Your task to perform on an android device: open app "Flipkart Online Shopping App" (install if not already installed) and go to login screen Image 0: 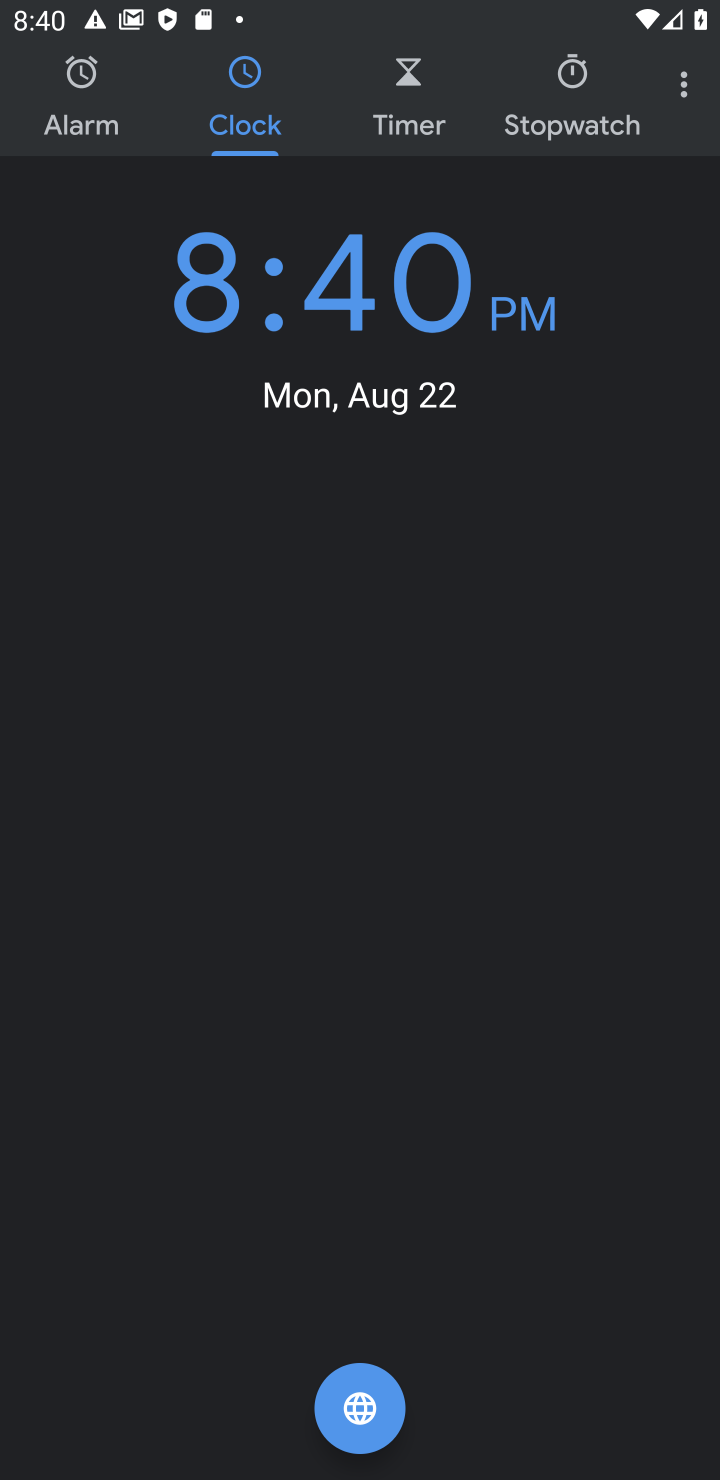
Step 0: press home button
Your task to perform on an android device: open app "Flipkart Online Shopping App" (install if not already installed) and go to login screen Image 1: 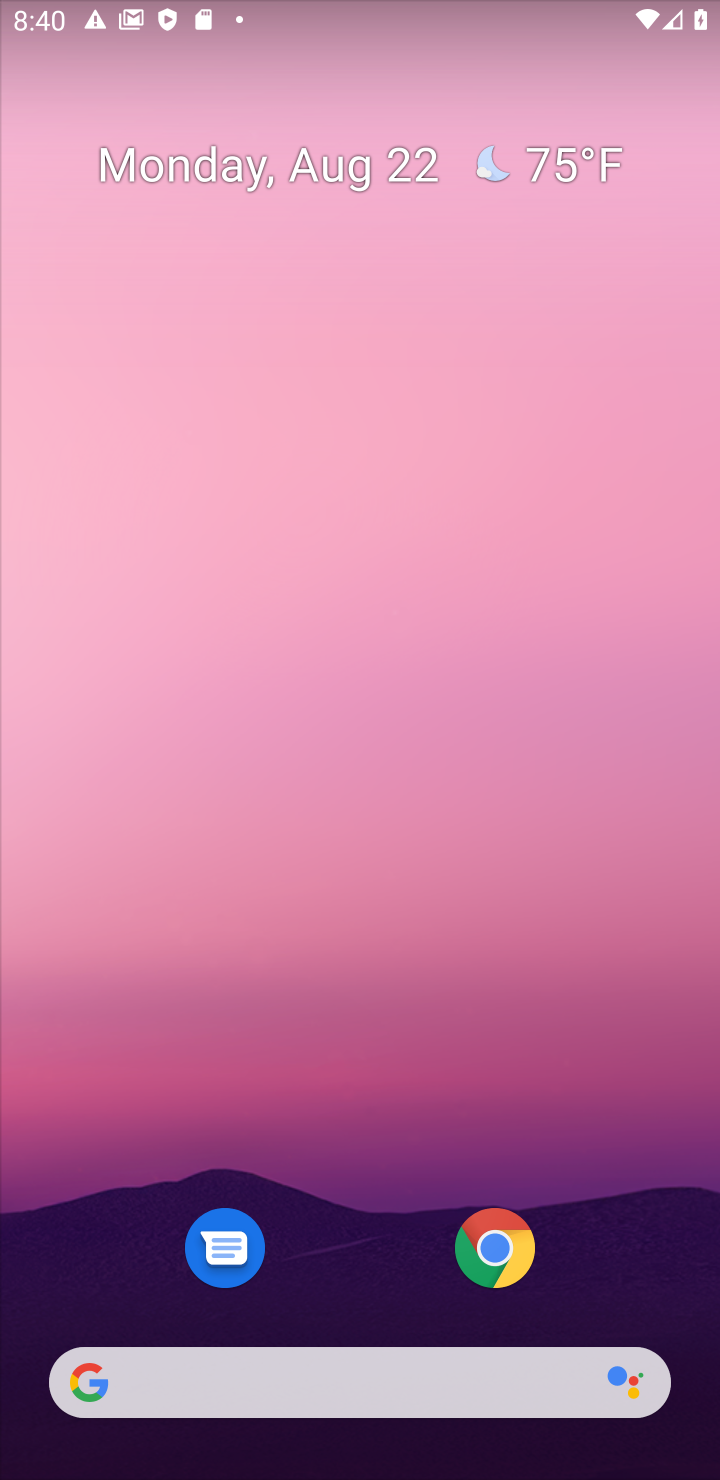
Step 1: drag from (319, 1238) to (330, 185)
Your task to perform on an android device: open app "Flipkart Online Shopping App" (install if not already installed) and go to login screen Image 2: 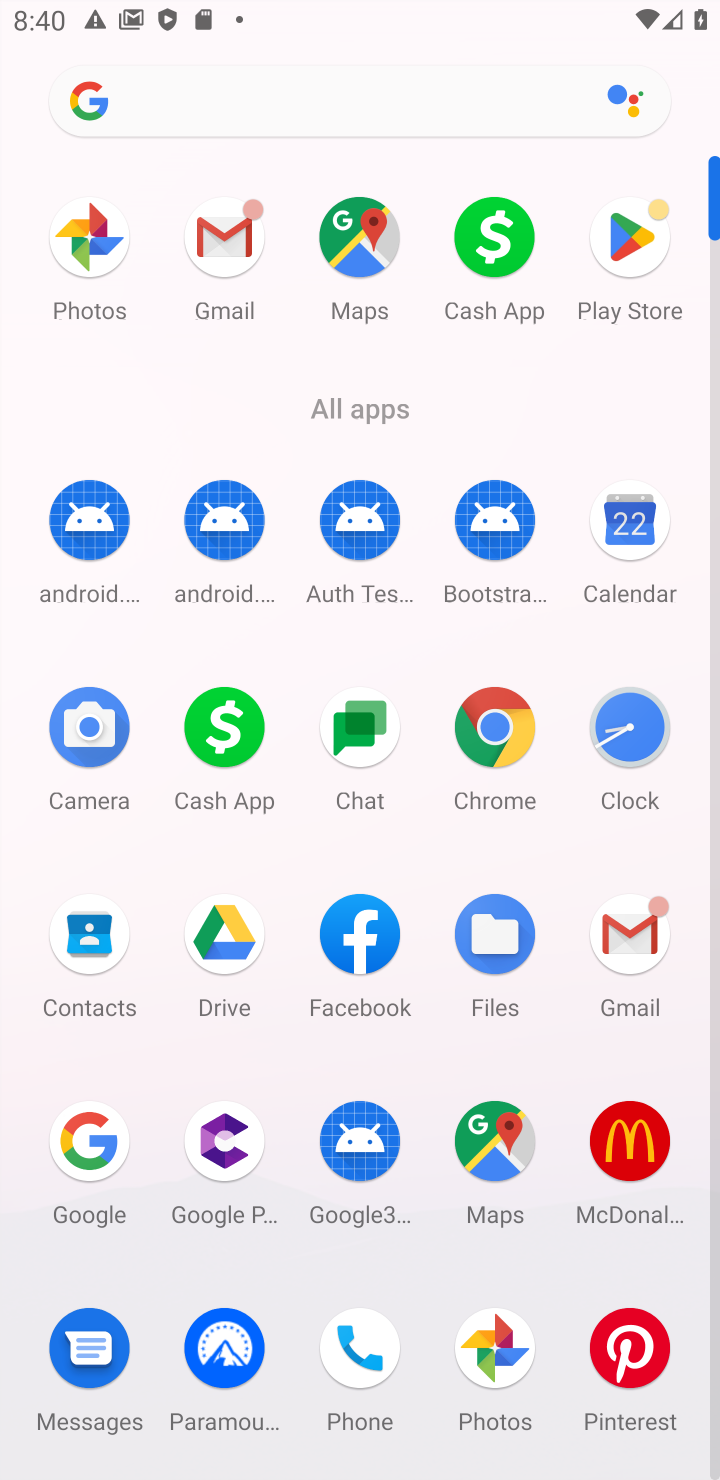
Step 2: click (632, 239)
Your task to perform on an android device: open app "Flipkart Online Shopping App" (install if not already installed) and go to login screen Image 3: 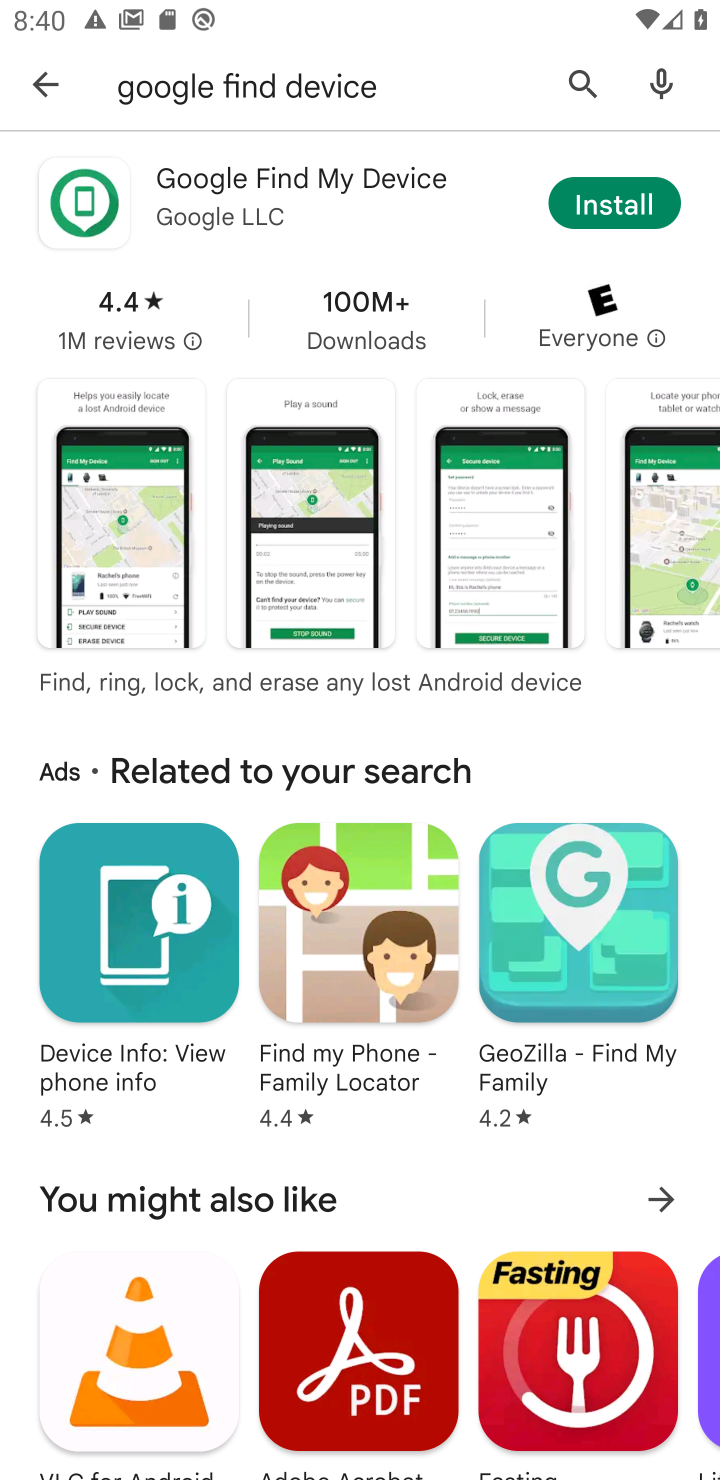
Step 3: click (576, 73)
Your task to perform on an android device: open app "Flipkart Online Shopping App" (install if not already installed) and go to login screen Image 4: 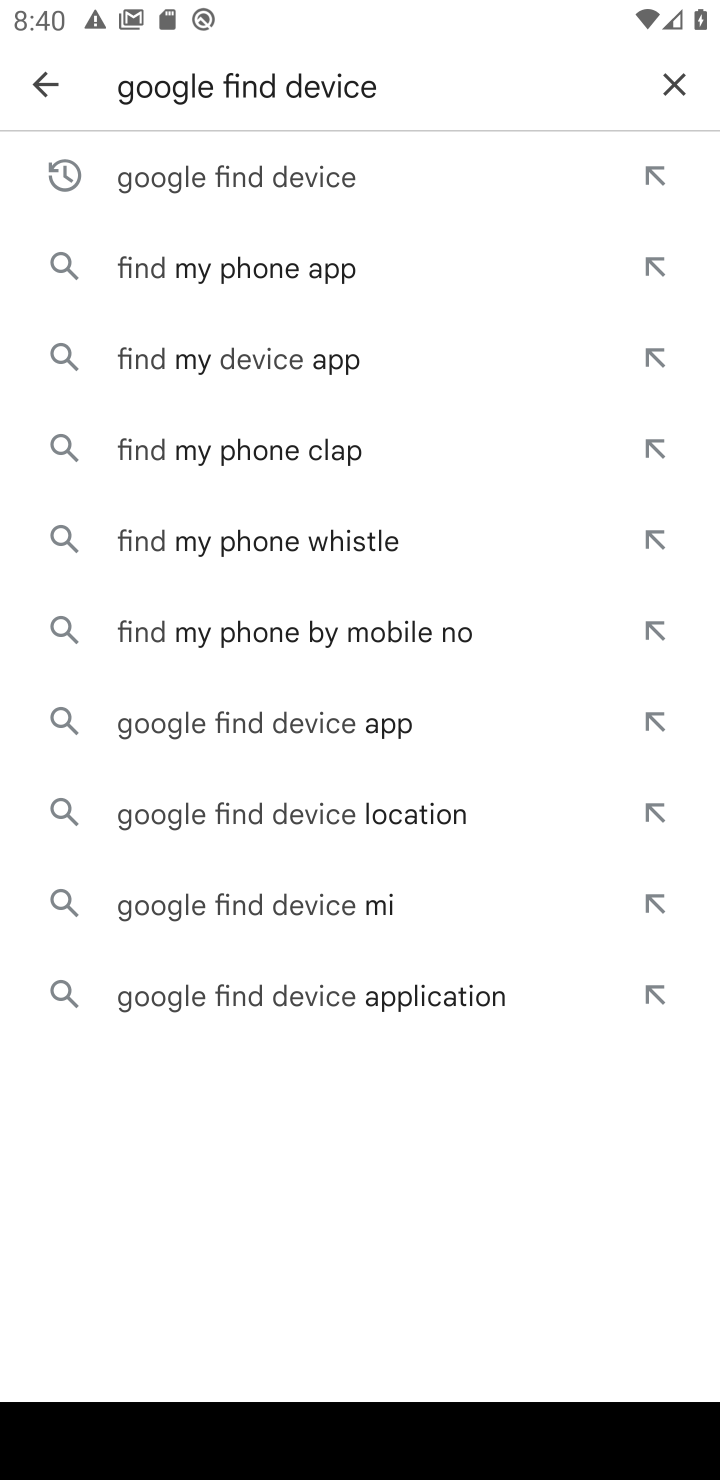
Step 4: click (673, 75)
Your task to perform on an android device: open app "Flipkart Online Shopping App" (install if not already installed) and go to login screen Image 5: 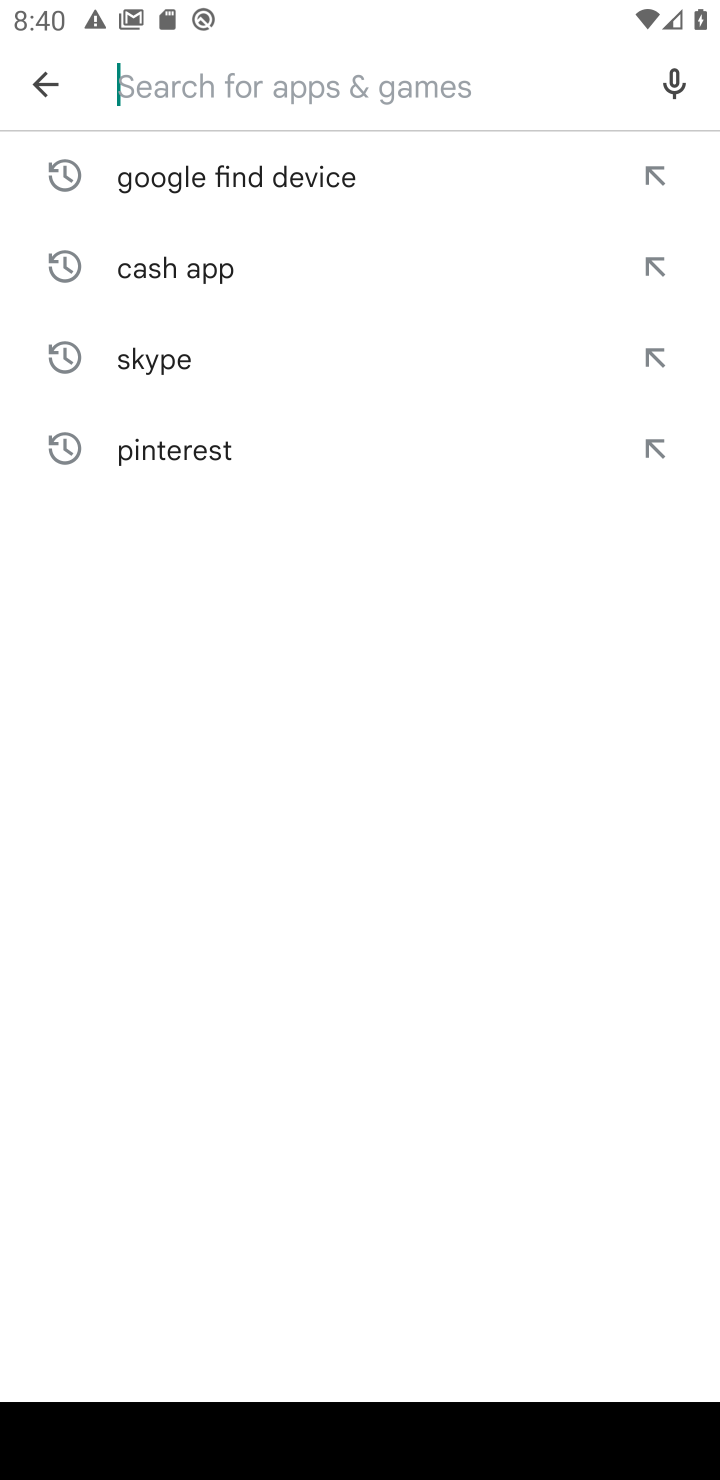
Step 5: type "Flipkart"
Your task to perform on an android device: open app "Flipkart Online Shopping App" (install if not already installed) and go to login screen Image 6: 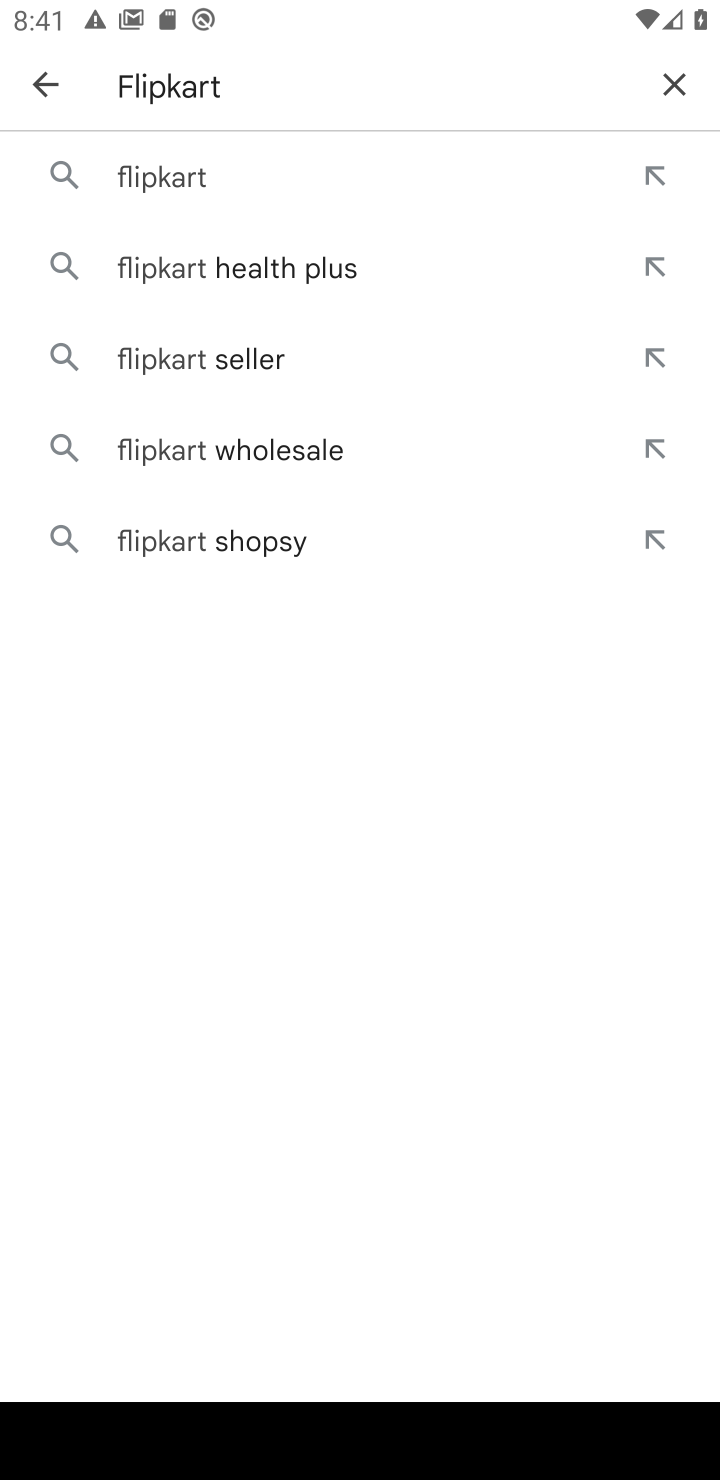
Step 6: type " online shopping App"
Your task to perform on an android device: open app "Flipkart Online Shopping App" (install if not already installed) and go to login screen Image 7: 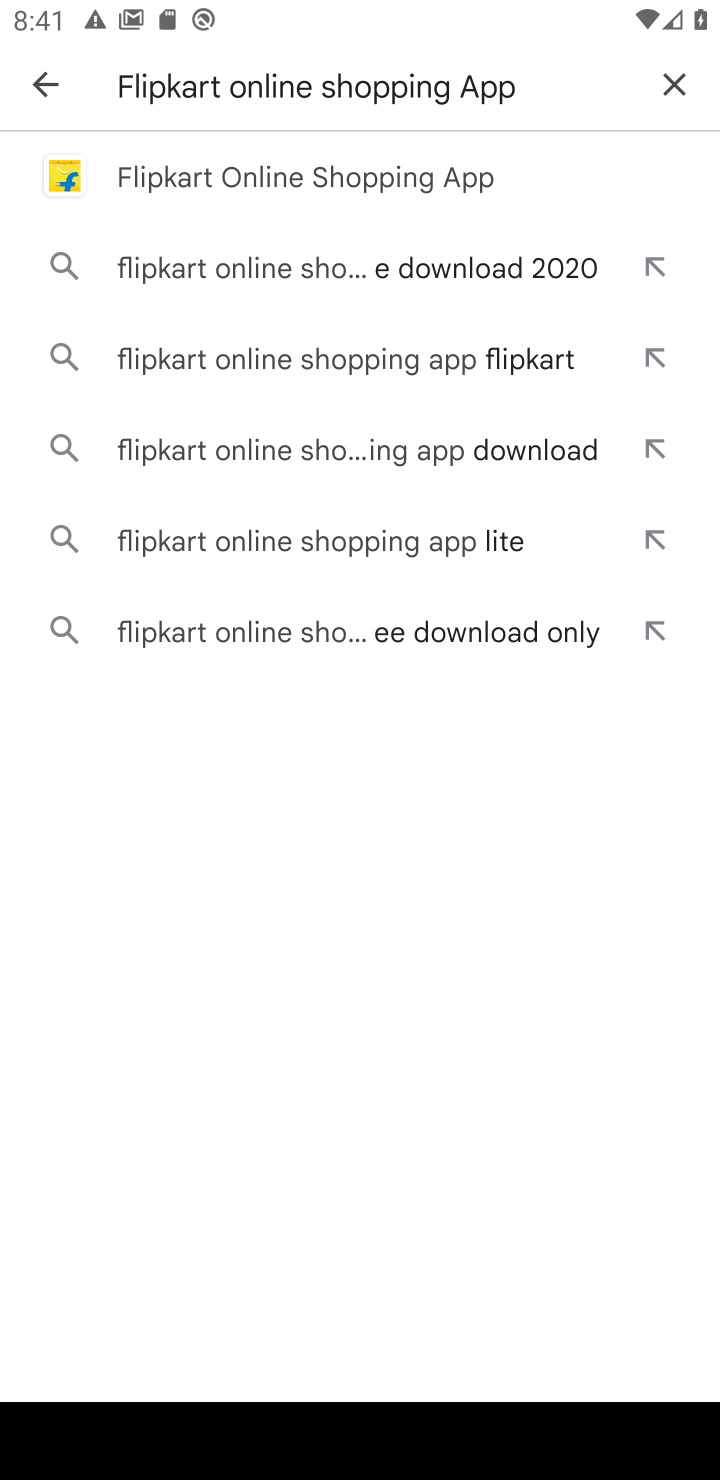
Step 7: click (328, 169)
Your task to perform on an android device: open app "Flipkart Online Shopping App" (install if not already installed) and go to login screen Image 8: 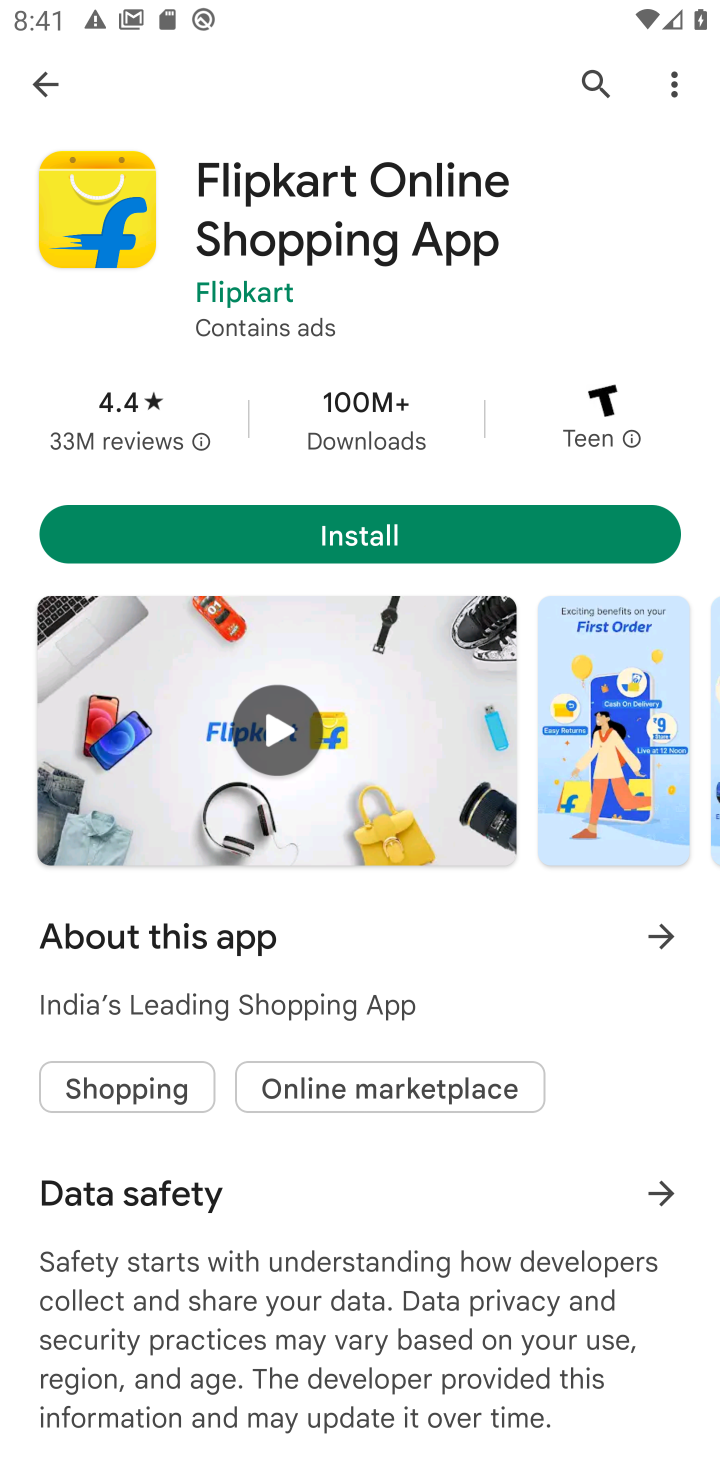
Step 8: click (390, 529)
Your task to perform on an android device: open app "Flipkart Online Shopping App" (install if not already installed) and go to login screen Image 9: 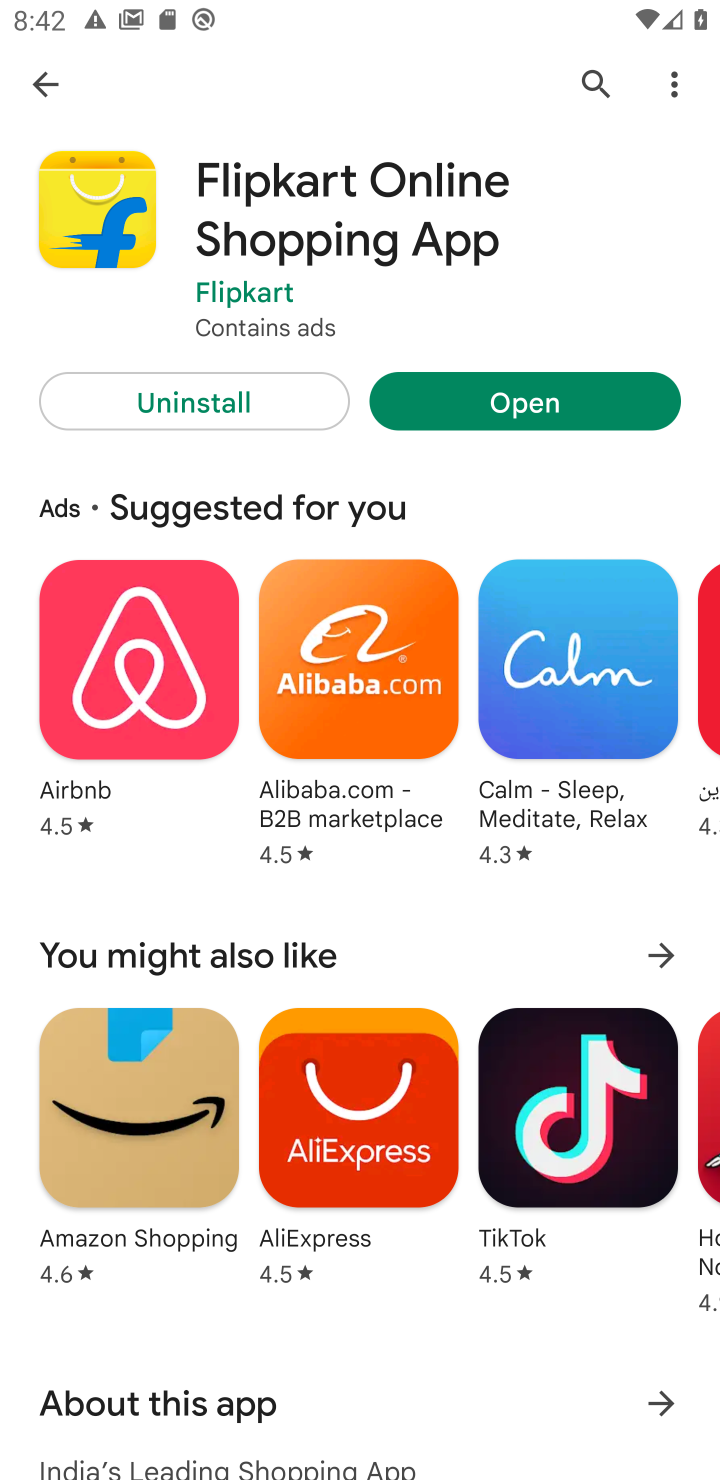
Step 9: click (558, 414)
Your task to perform on an android device: open app "Flipkart Online Shopping App" (install if not already installed) and go to login screen Image 10: 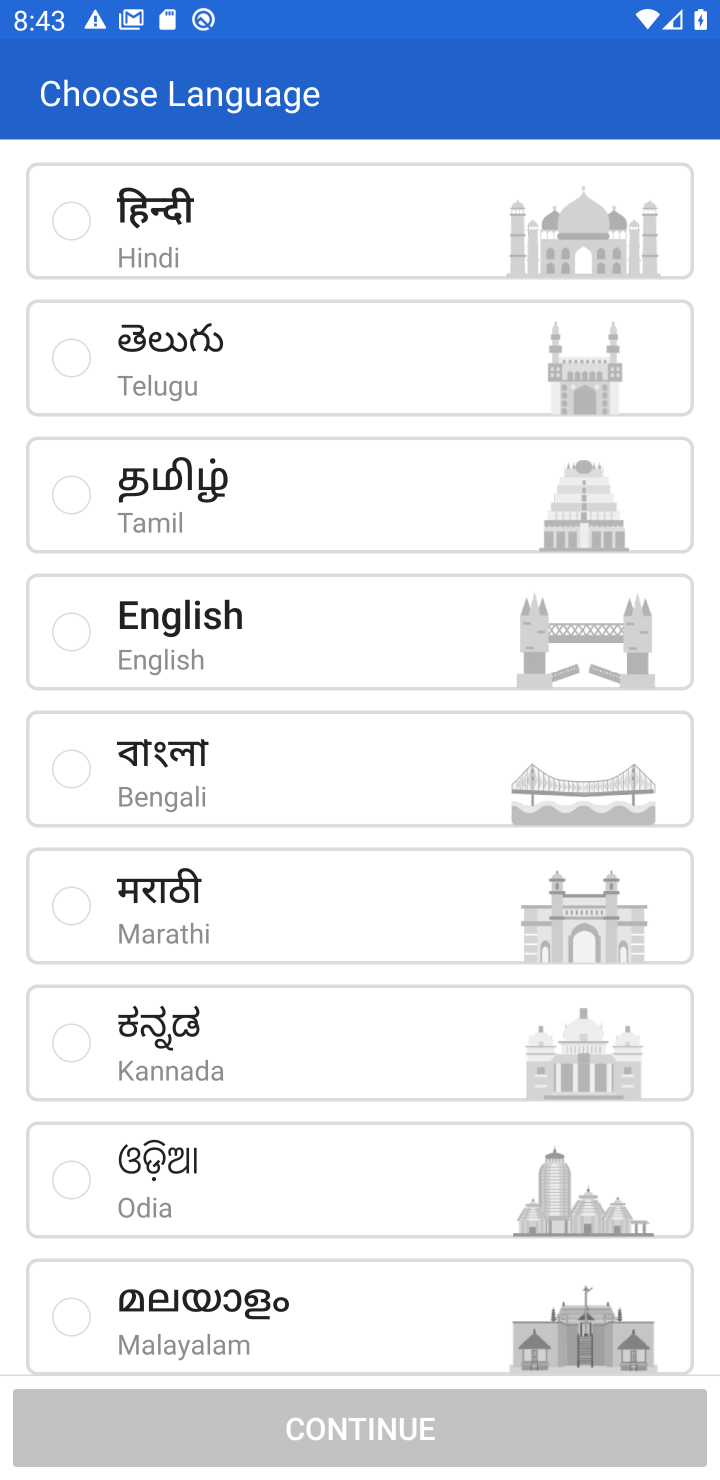
Step 10: click (64, 630)
Your task to perform on an android device: open app "Flipkart Online Shopping App" (install if not already installed) and go to login screen Image 11: 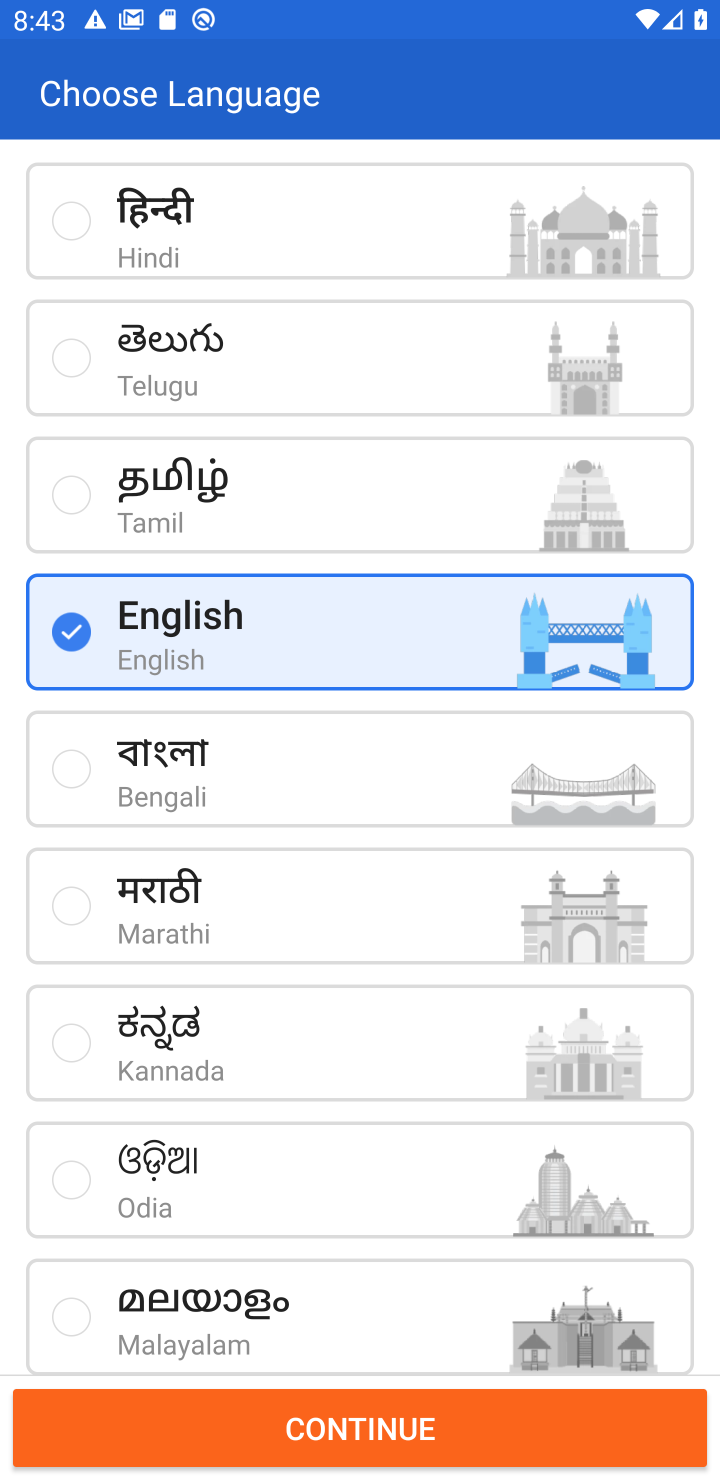
Step 11: click (390, 1438)
Your task to perform on an android device: open app "Flipkart Online Shopping App" (install if not already installed) and go to login screen Image 12: 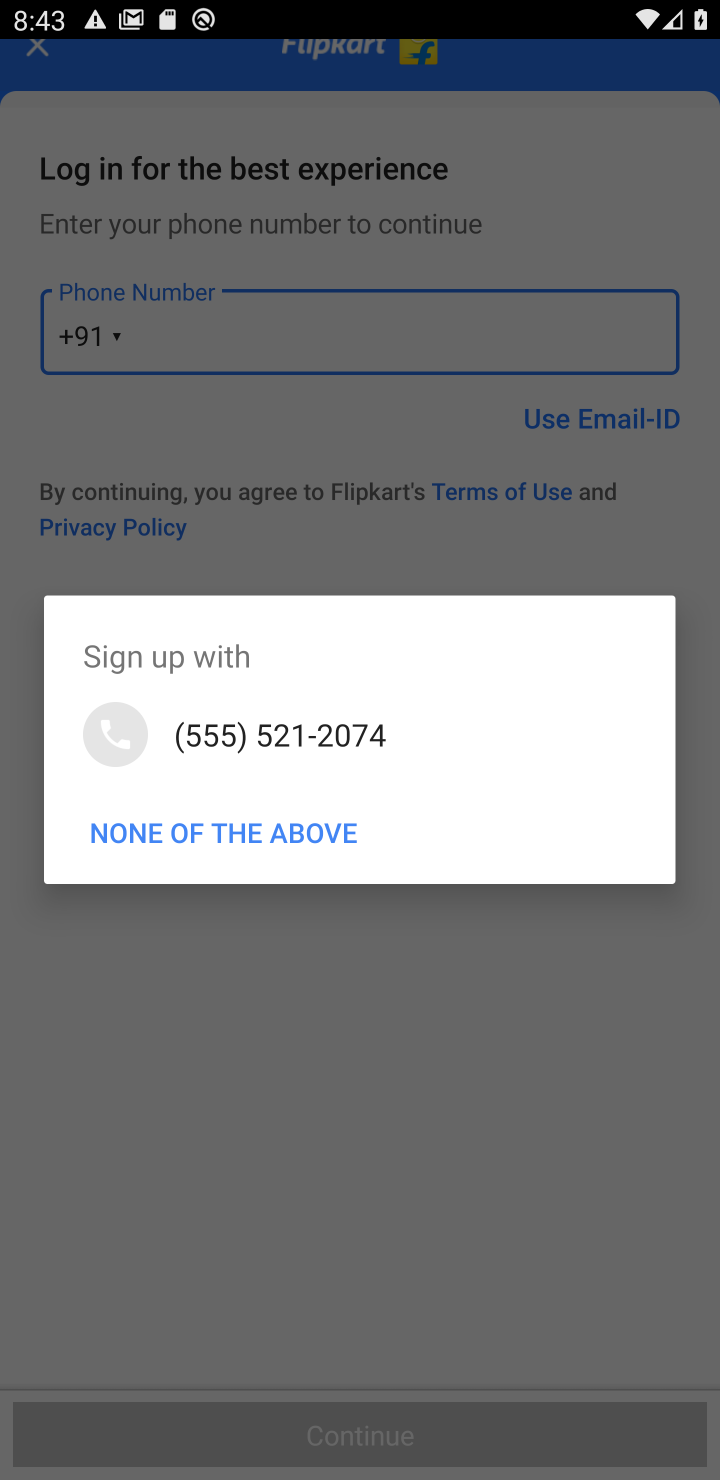
Step 12: click (271, 829)
Your task to perform on an android device: open app "Flipkart Online Shopping App" (install if not already installed) and go to login screen Image 13: 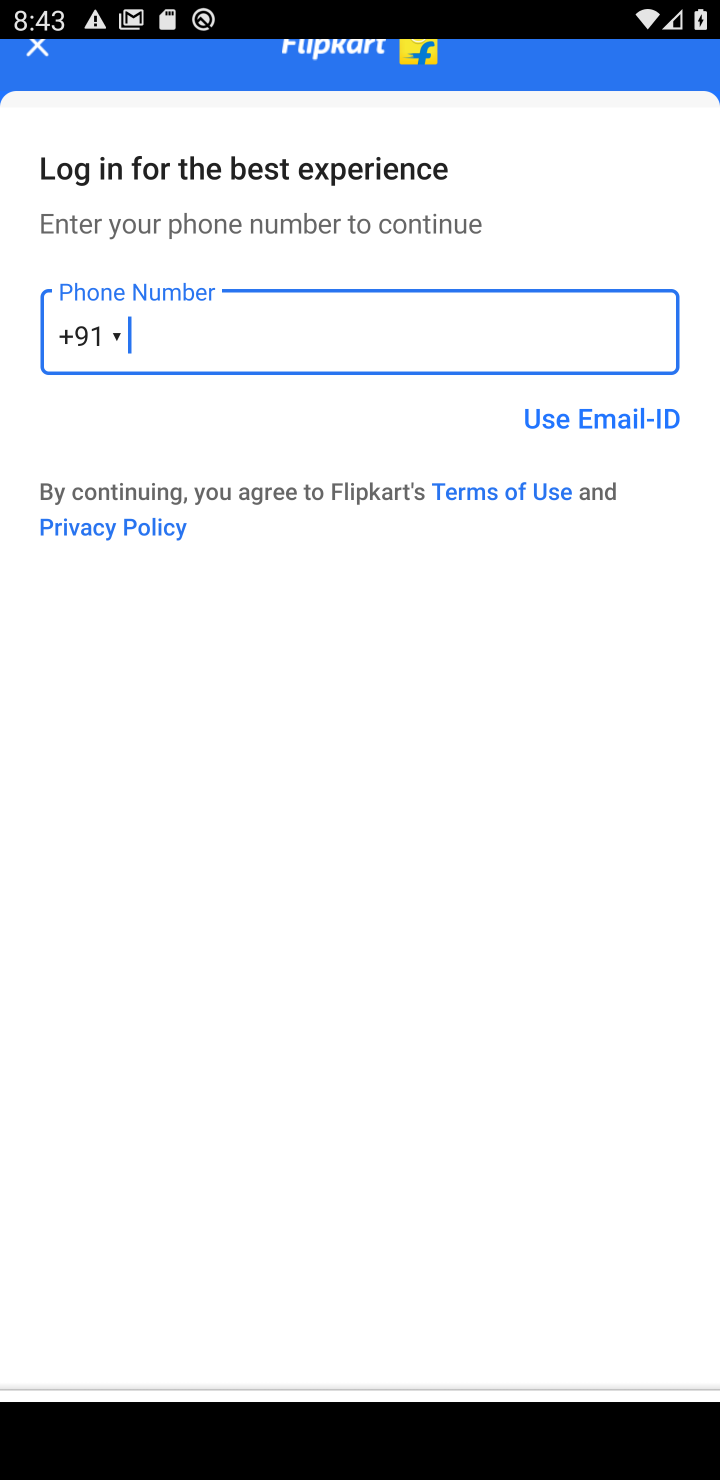
Step 13: task complete